Your task to perform on an android device: turn off translation in the chrome app Image 0: 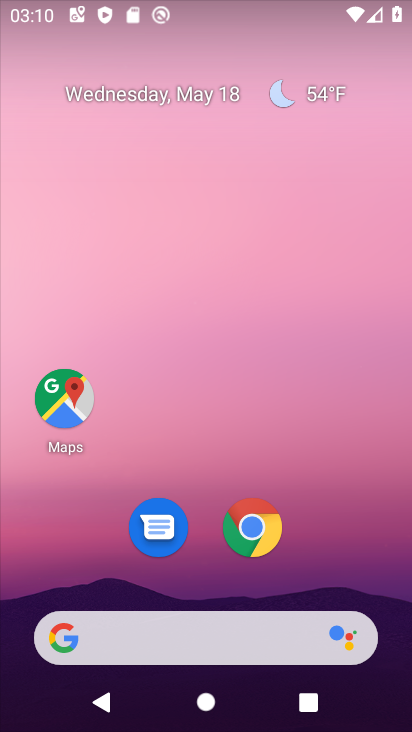
Step 0: drag from (237, 590) to (304, 4)
Your task to perform on an android device: turn off translation in the chrome app Image 1: 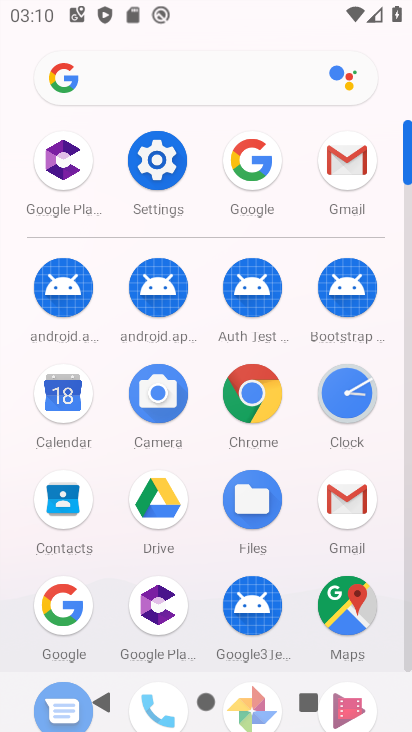
Step 1: click (271, 413)
Your task to perform on an android device: turn off translation in the chrome app Image 2: 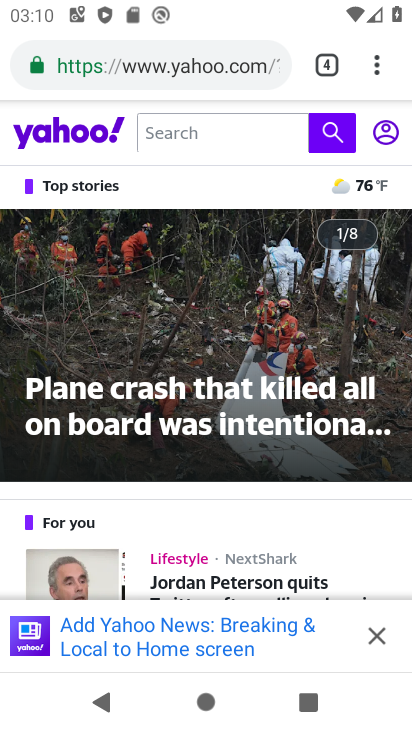
Step 2: click (381, 71)
Your task to perform on an android device: turn off translation in the chrome app Image 3: 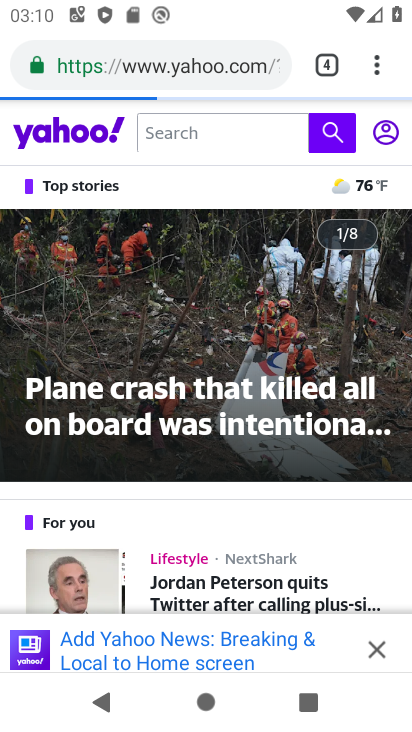
Step 3: drag from (378, 69) to (173, 593)
Your task to perform on an android device: turn off translation in the chrome app Image 4: 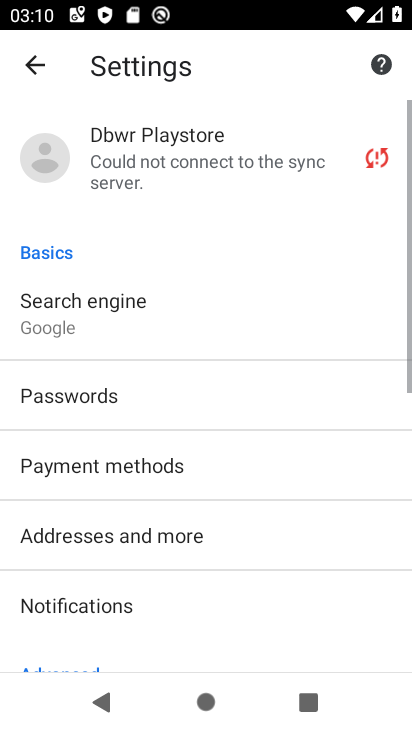
Step 4: drag from (179, 630) to (170, 109)
Your task to perform on an android device: turn off translation in the chrome app Image 5: 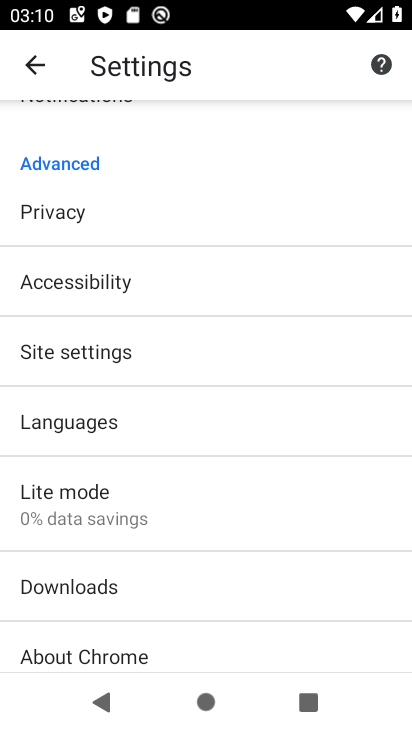
Step 5: click (136, 422)
Your task to perform on an android device: turn off translation in the chrome app Image 6: 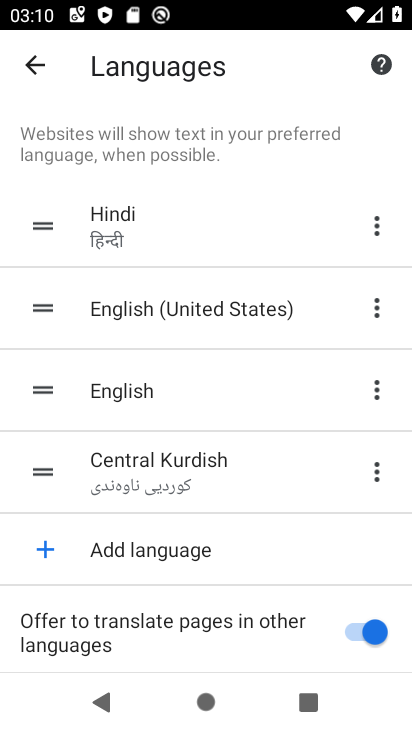
Step 6: drag from (223, 503) to (201, 174)
Your task to perform on an android device: turn off translation in the chrome app Image 7: 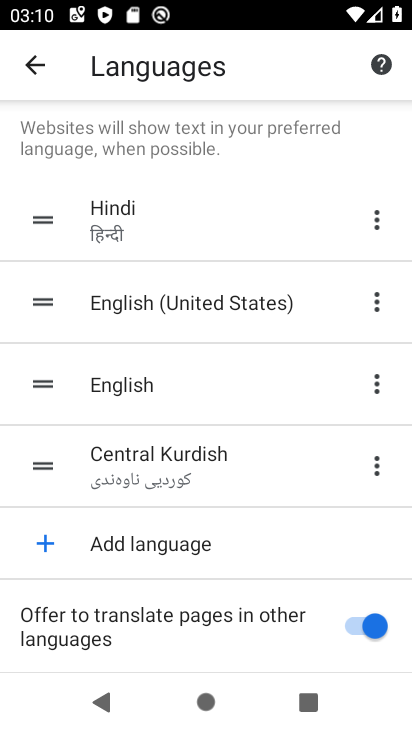
Step 7: click (372, 625)
Your task to perform on an android device: turn off translation in the chrome app Image 8: 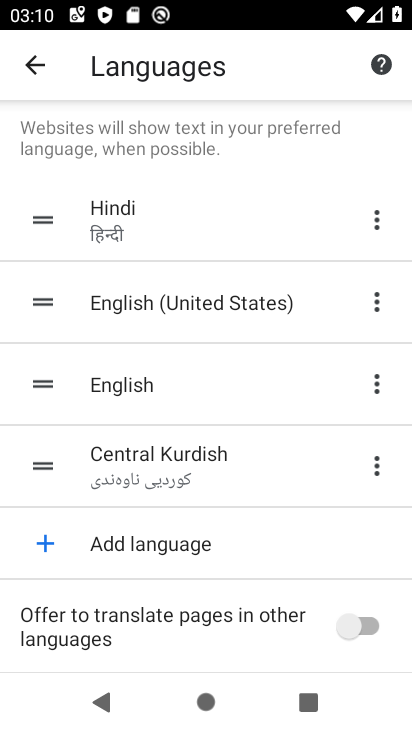
Step 8: task complete